Your task to perform on an android device: turn notification dots off Image 0: 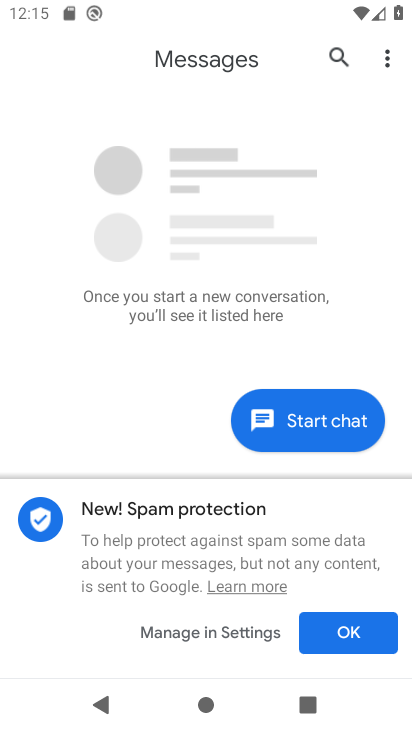
Step 0: press home button
Your task to perform on an android device: turn notification dots off Image 1: 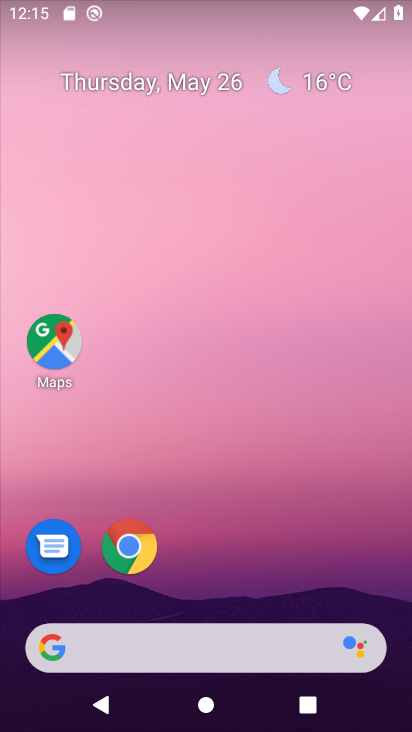
Step 1: drag from (200, 582) to (243, 195)
Your task to perform on an android device: turn notification dots off Image 2: 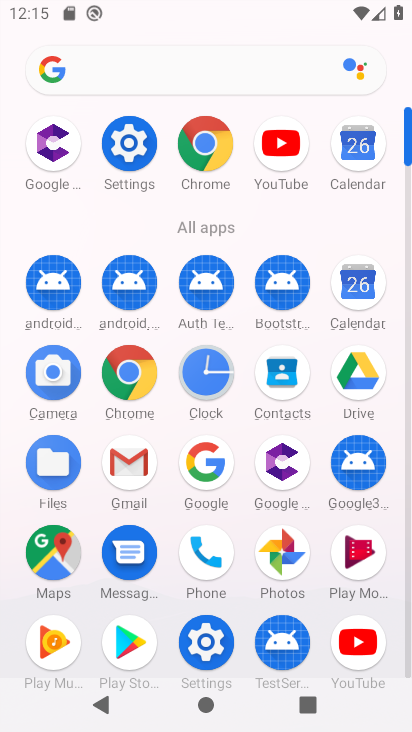
Step 2: click (127, 142)
Your task to perform on an android device: turn notification dots off Image 3: 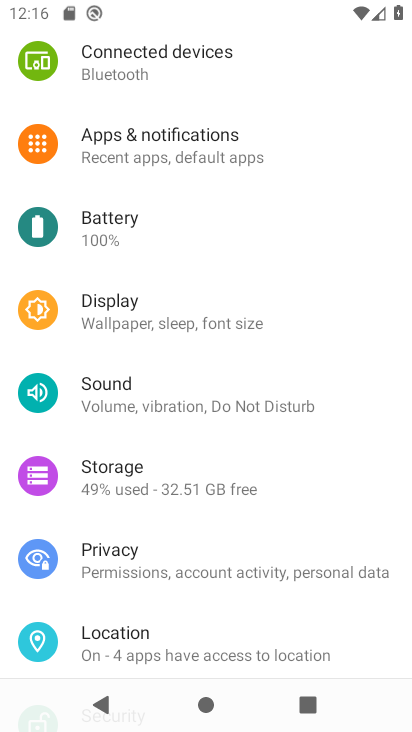
Step 3: click (137, 143)
Your task to perform on an android device: turn notification dots off Image 4: 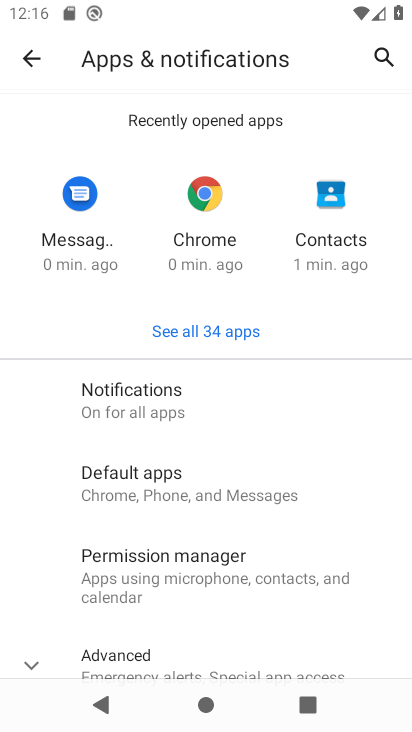
Step 4: drag from (157, 616) to (214, 281)
Your task to perform on an android device: turn notification dots off Image 5: 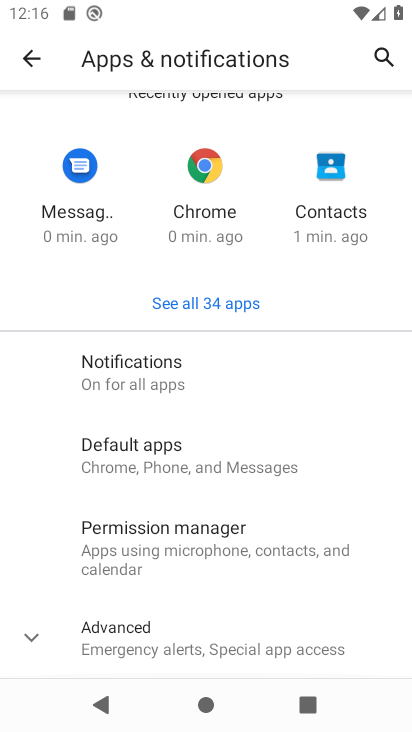
Step 5: click (151, 375)
Your task to perform on an android device: turn notification dots off Image 6: 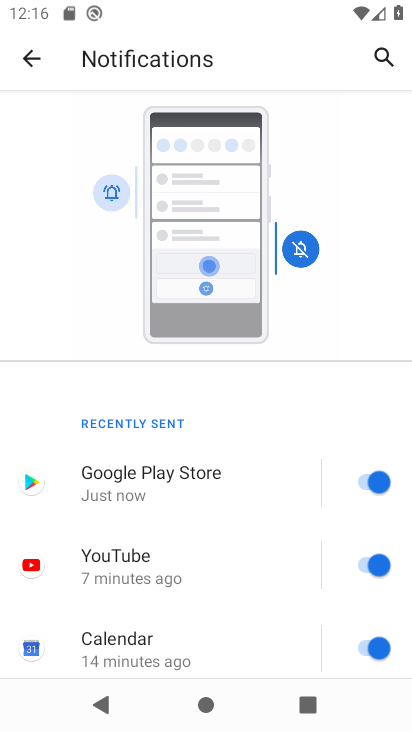
Step 6: drag from (205, 579) to (284, 218)
Your task to perform on an android device: turn notification dots off Image 7: 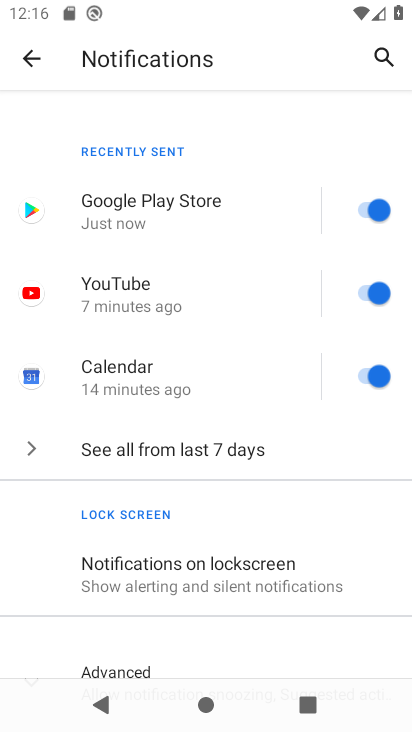
Step 7: drag from (205, 578) to (280, 296)
Your task to perform on an android device: turn notification dots off Image 8: 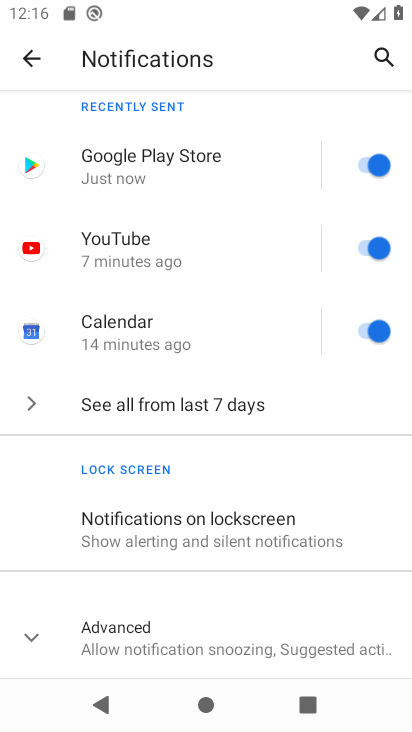
Step 8: click (29, 636)
Your task to perform on an android device: turn notification dots off Image 9: 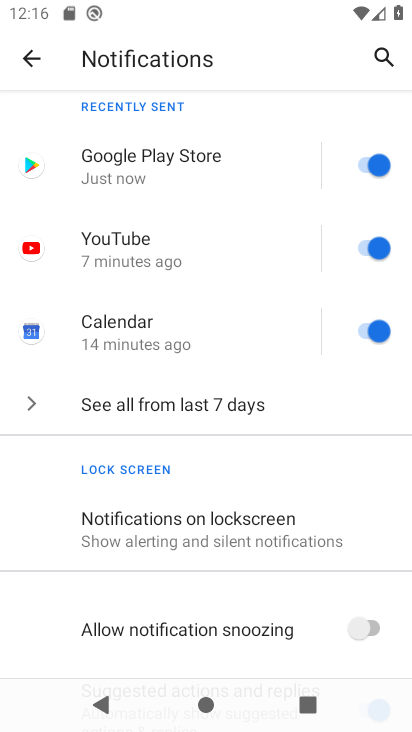
Step 9: drag from (107, 644) to (227, 304)
Your task to perform on an android device: turn notification dots off Image 10: 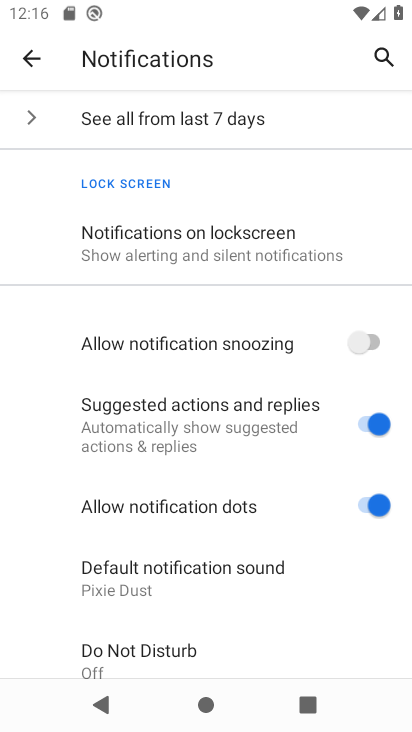
Step 10: click (367, 502)
Your task to perform on an android device: turn notification dots off Image 11: 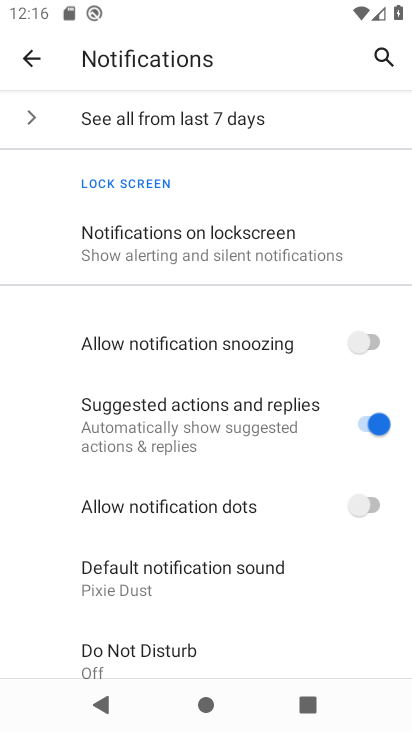
Step 11: task complete